Your task to perform on an android device: Show the shopping cart on target.com. Search for logitech g pro on target.com, select the first entry, add it to the cart, then select checkout. Image 0: 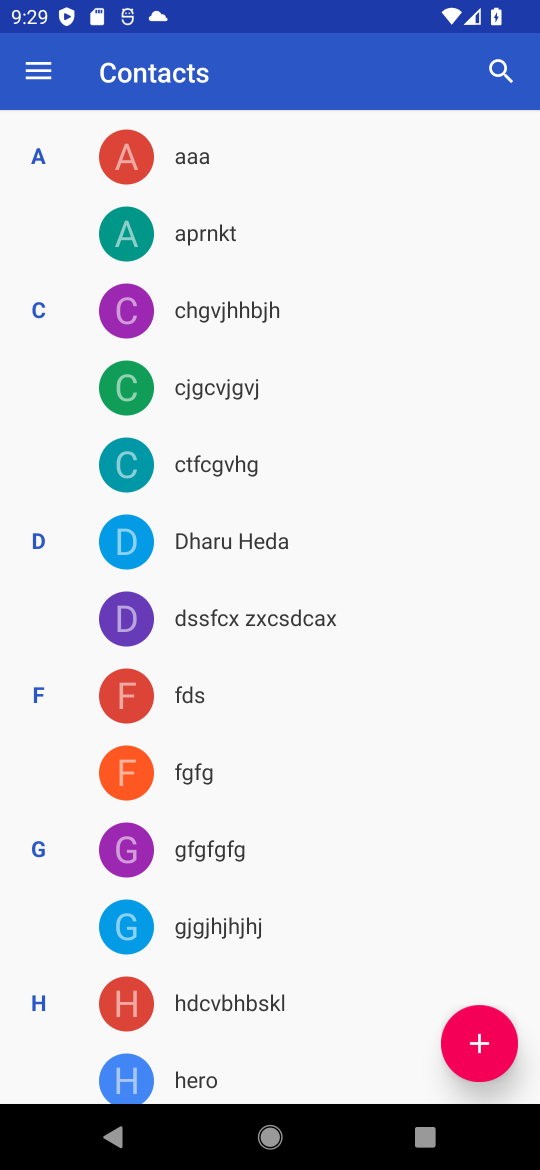
Step 0: press home button
Your task to perform on an android device: Show the shopping cart on target.com. Search for logitech g pro on target.com, select the first entry, add it to the cart, then select checkout. Image 1: 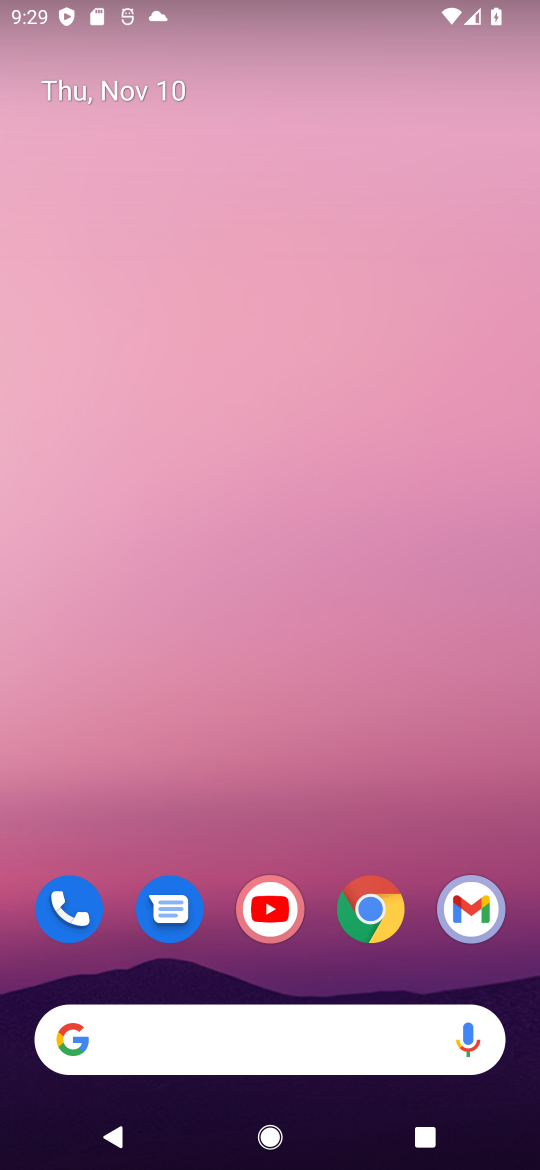
Step 1: drag from (215, 1053) to (390, 361)
Your task to perform on an android device: Show the shopping cart on target.com. Search for logitech g pro on target.com, select the first entry, add it to the cart, then select checkout. Image 2: 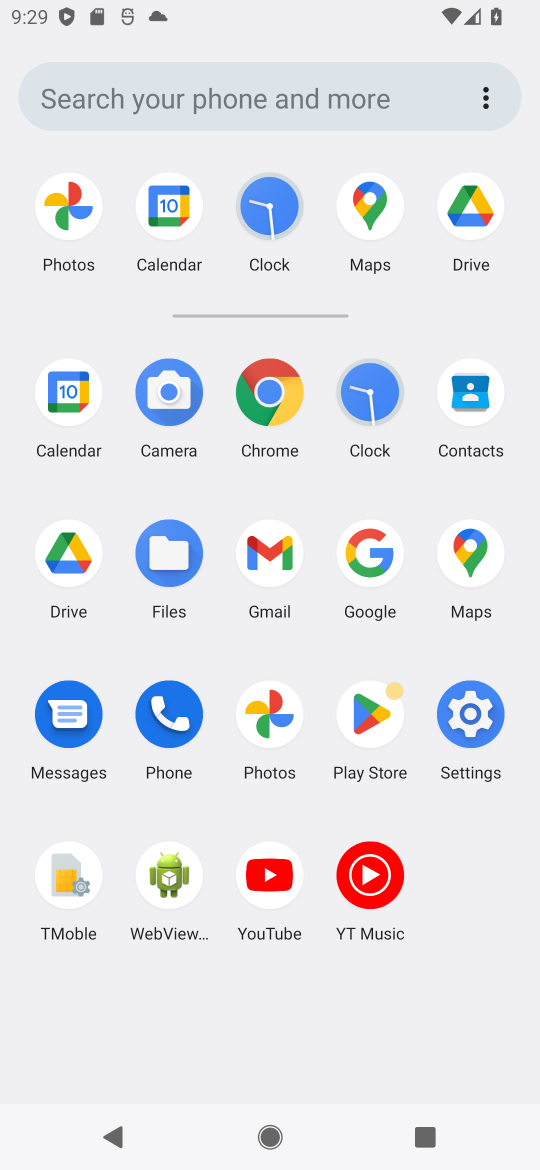
Step 2: click (354, 558)
Your task to perform on an android device: Show the shopping cart on target.com. Search for logitech g pro on target.com, select the first entry, add it to the cart, then select checkout. Image 3: 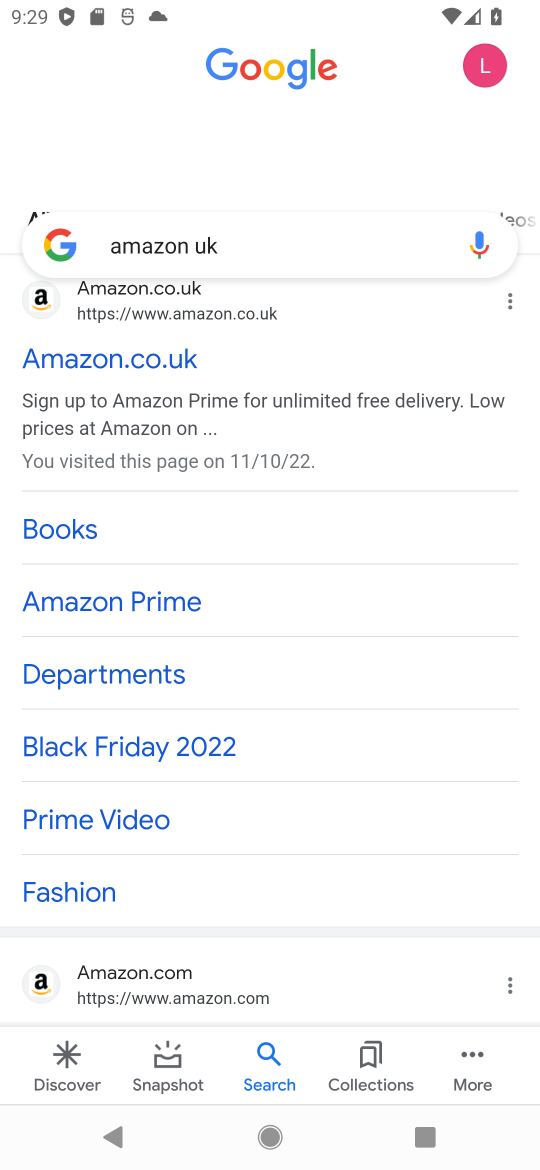
Step 3: click (248, 213)
Your task to perform on an android device: Show the shopping cart on target.com. Search for logitech g pro on target.com, select the first entry, add it to the cart, then select checkout. Image 4: 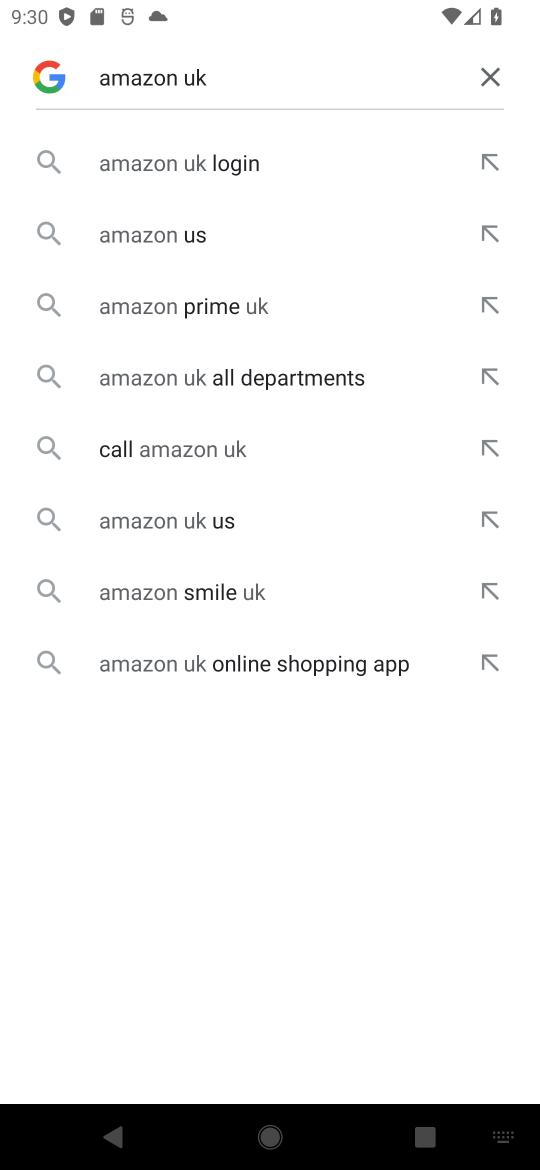
Step 4: click (496, 68)
Your task to perform on an android device: Show the shopping cart on target.com. Search for logitech g pro on target.com, select the first entry, add it to the cart, then select checkout. Image 5: 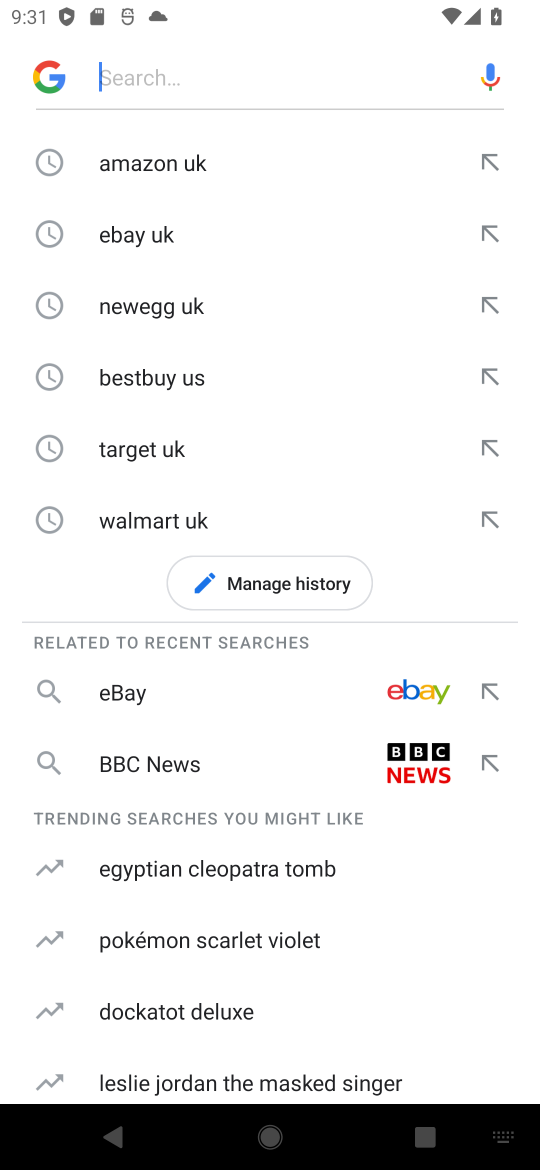
Step 5: click (180, 445)
Your task to perform on an android device: Show the shopping cart on target.com. Search for logitech g pro on target.com, select the first entry, add it to the cart, then select checkout. Image 6: 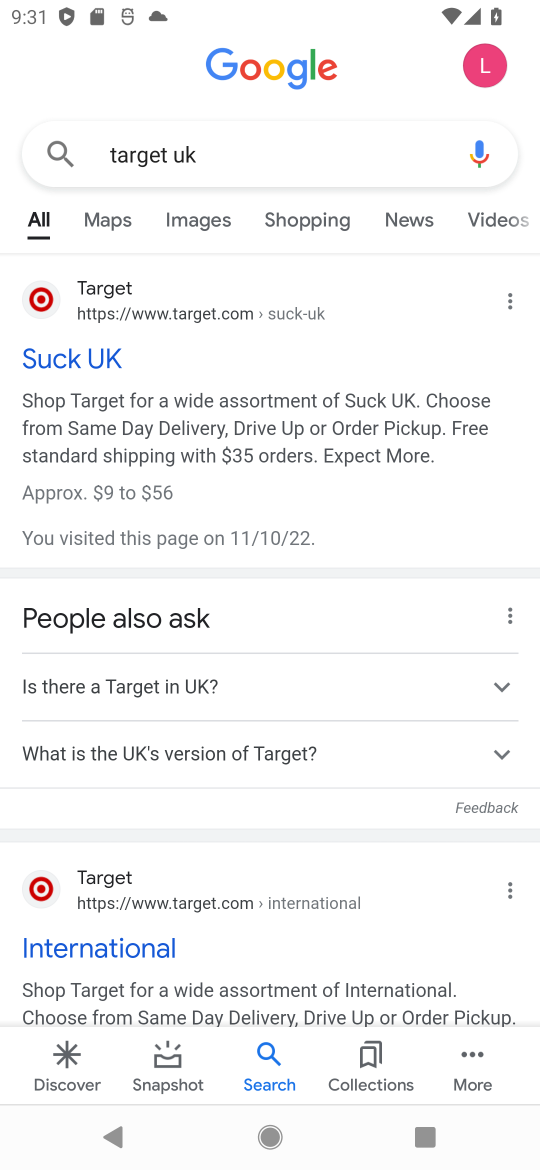
Step 6: click (44, 293)
Your task to perform on an android device: Show the shopping cart on target.com. Search for logitech g pro on target.com, select the first entry, add it to the cart, then select checkout. Image 7: 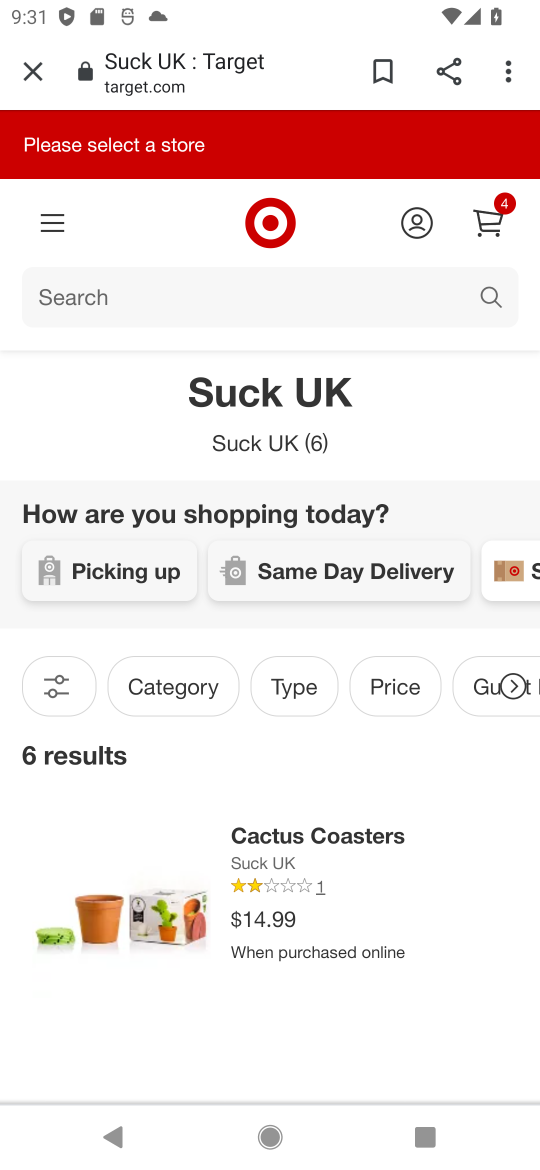
Step 7: click (211, 282)
Your task to perform on an android device: Show the shopping cart on target.com. Search for logitech g pro on target.com, select the first entry, add it to the cart, then select checkout. Image 8: 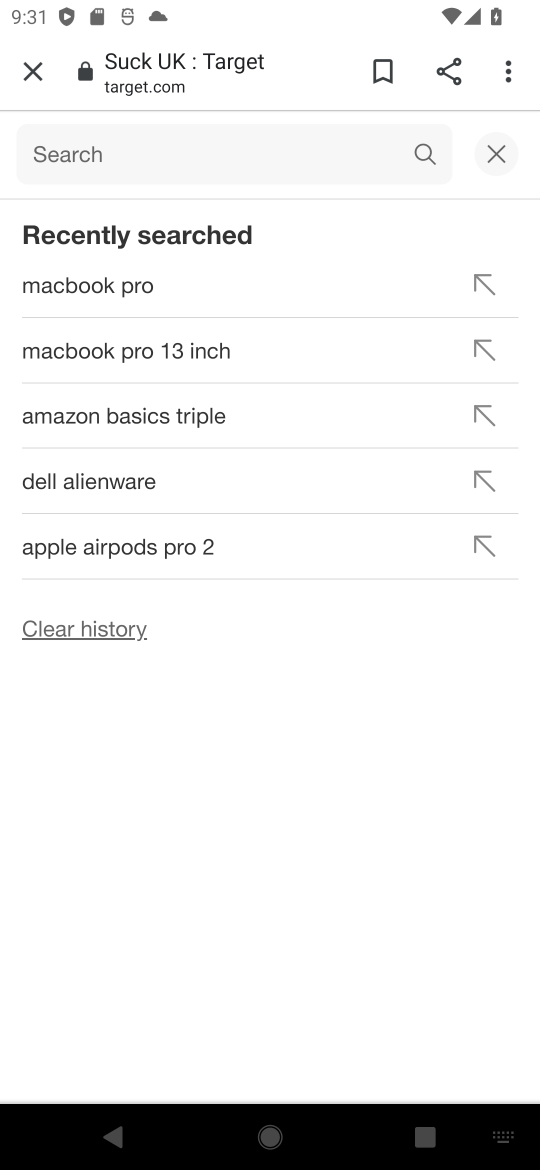
Step 8: click (305, 146)
Your task to perform on an android device: Show the shopping cart on target.com. Search for logitech g pro on target.com, select the first entry, add it to the cart, then select checkout. Image 9: 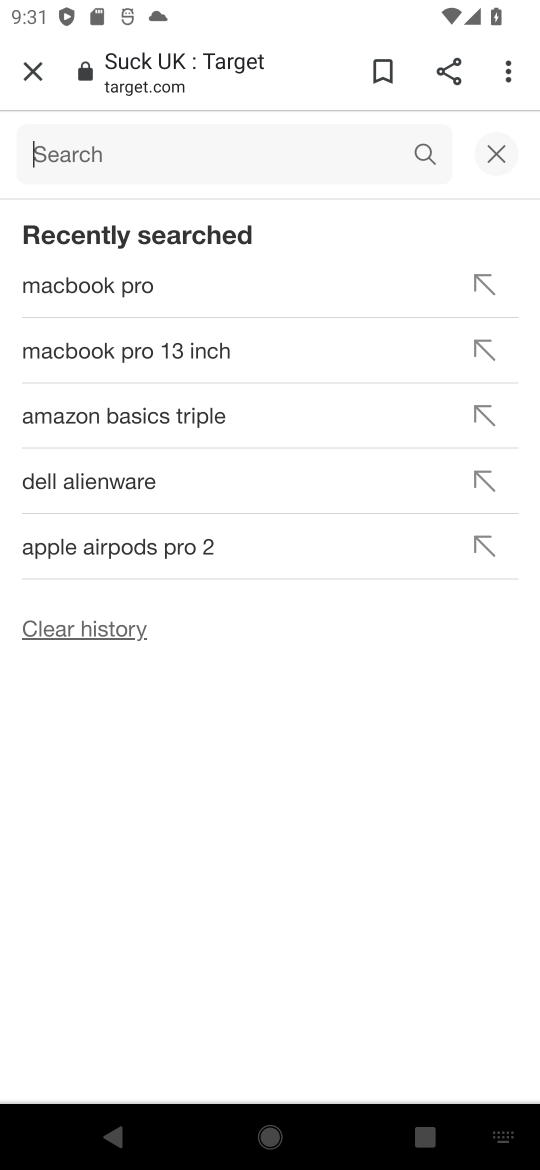
Step 9: click (209, 148)
Your task to perform on an android device: Show the shopping cart on target.com. Search for logitech g pro on target.com, select the first entry, add it to the cart, then select checkout. Image 10: 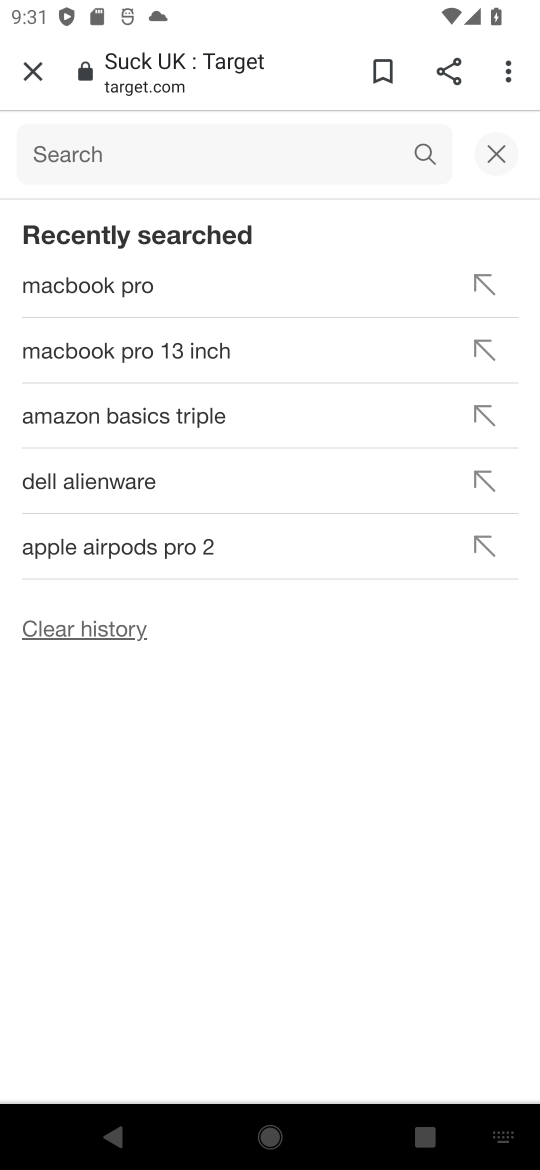
Step 10: type "usb-a "
Your task to perform on an android device: Show the shopping cart on target.com. Search for logitech g pro on target.com, select the first entry, add it to the cart, then select checkout. Image 11: 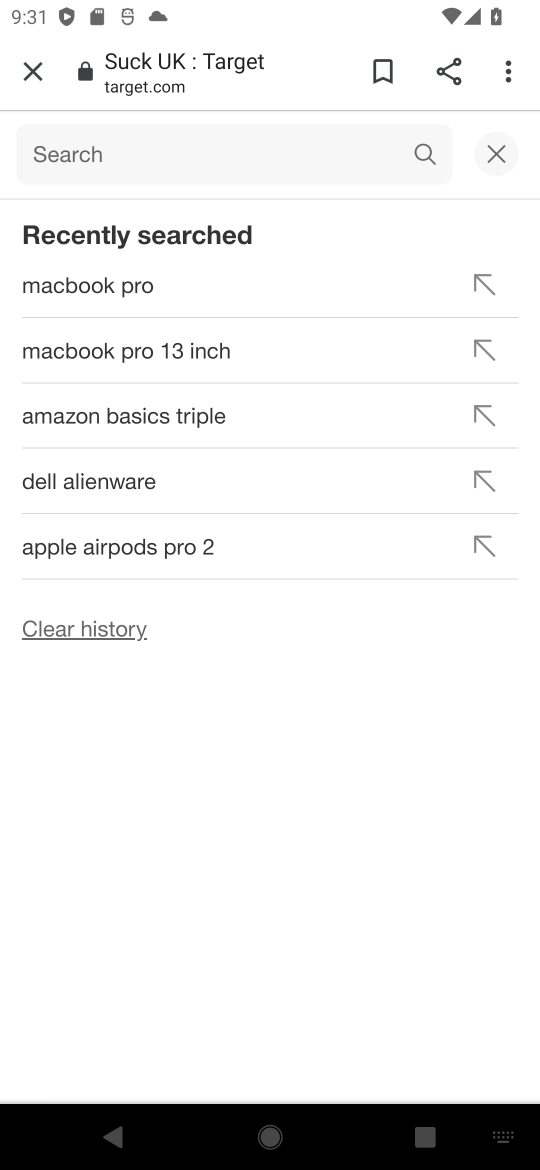
Step 11: click (482, 146)
Your task to perform on an android device: Show the shopping cart on target.com. Search for logitech g pro on target.com, select the first entry, add it to the cart, then select checkout. Image 12: 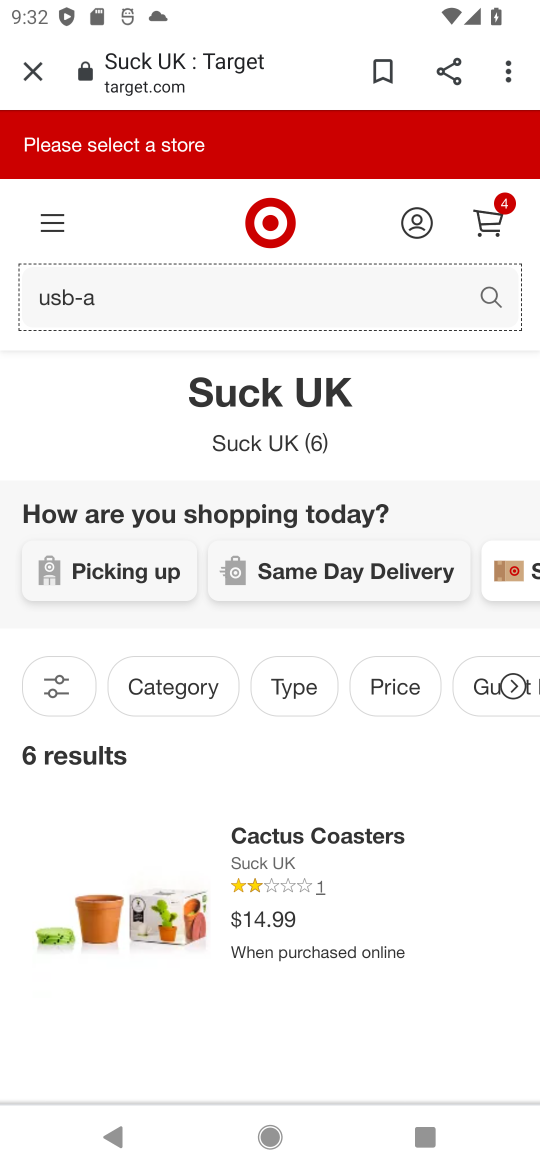
Step 12: click (303, 283)
Your task to perform on an android device: Show the shopping cart on target.com. Search for logitech g pro on target.com, select the first entry, add it to the cart, then select checkout. Image 13: 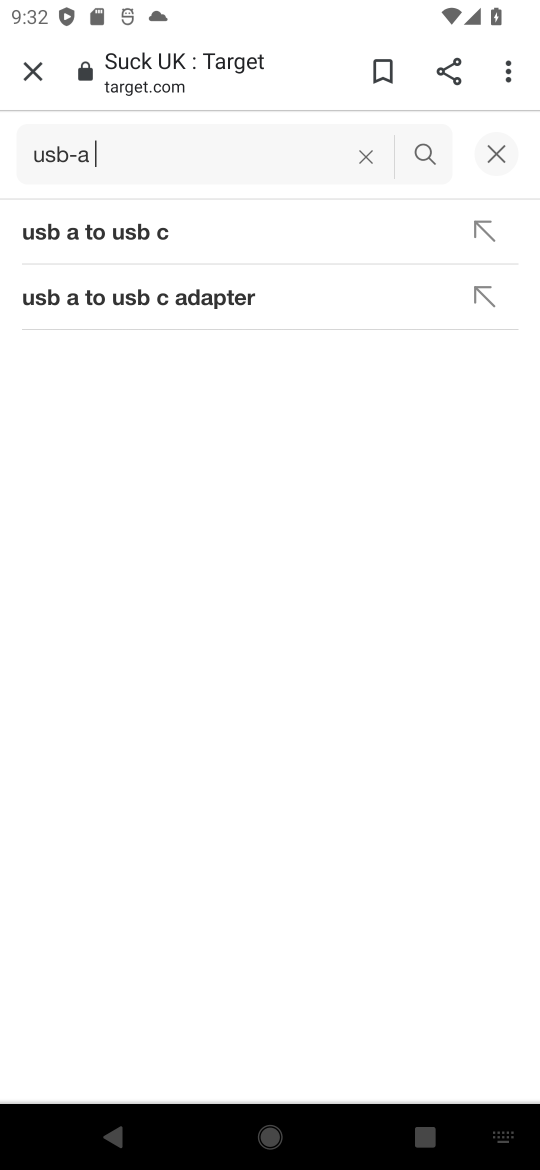
Step 13: click (491, 155)
Your task to perform on an android device: Show the shopping cart on target.com. Search for logitech g pro on target.com, select the first entry, add it to the cart, then select checkout. Image 14: 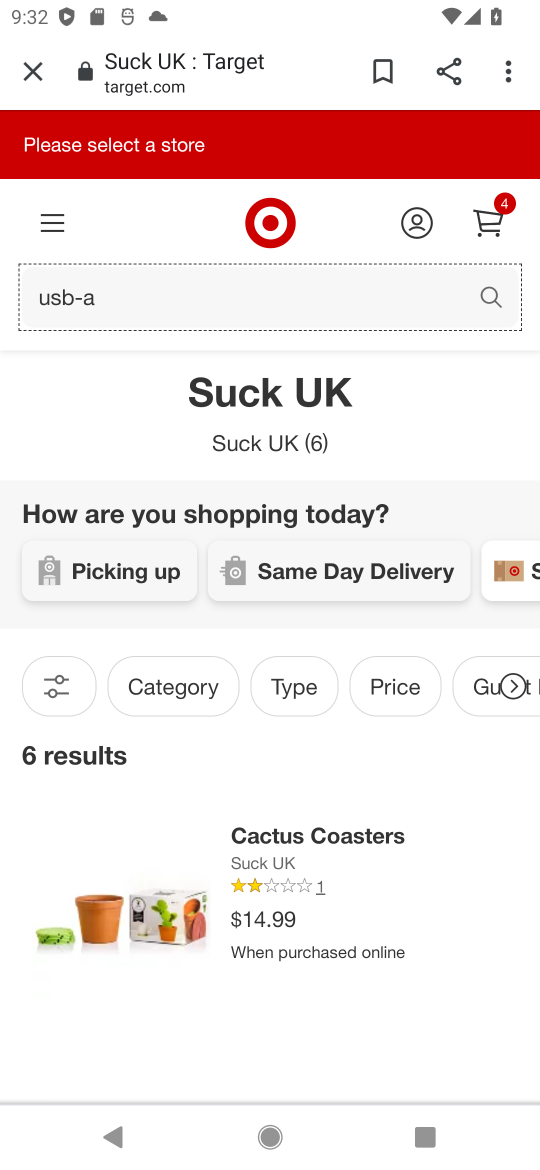
Step 14: click (217, 289)
Your task to perform on an android device: Show the shopping cart on target.com. Search for logitech g pro on target.com, select the first entry, add it to the cart, then select checkout. Image 15: 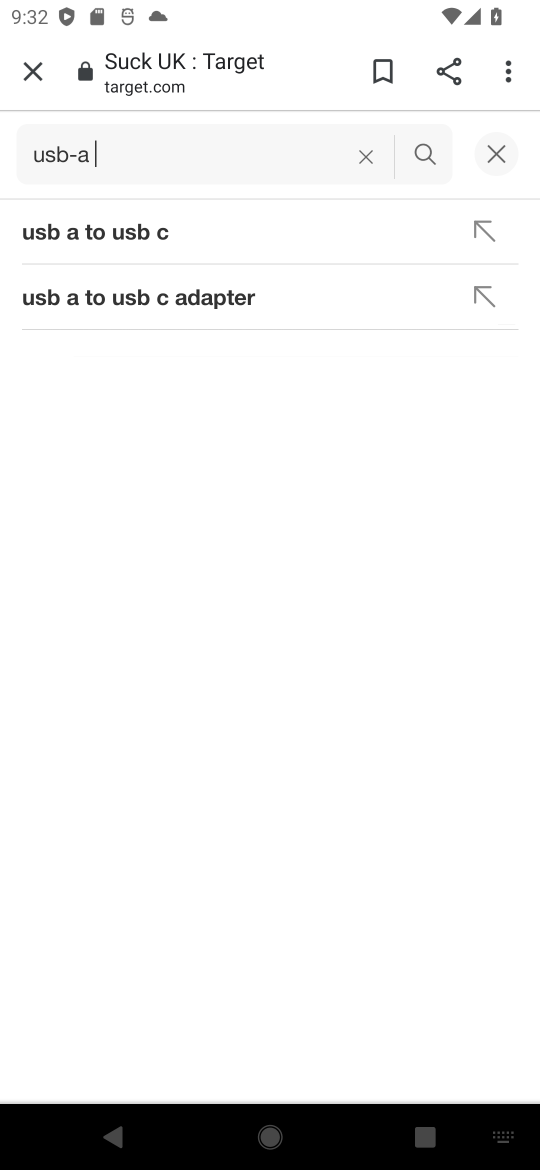
Step 15: click (367, 150)
Your task to perform on an android device: Show the shopping cart on target.com. Search for logitech g pro on target.com, select the first entry, add it to the cart, then select checkout. Image 16: 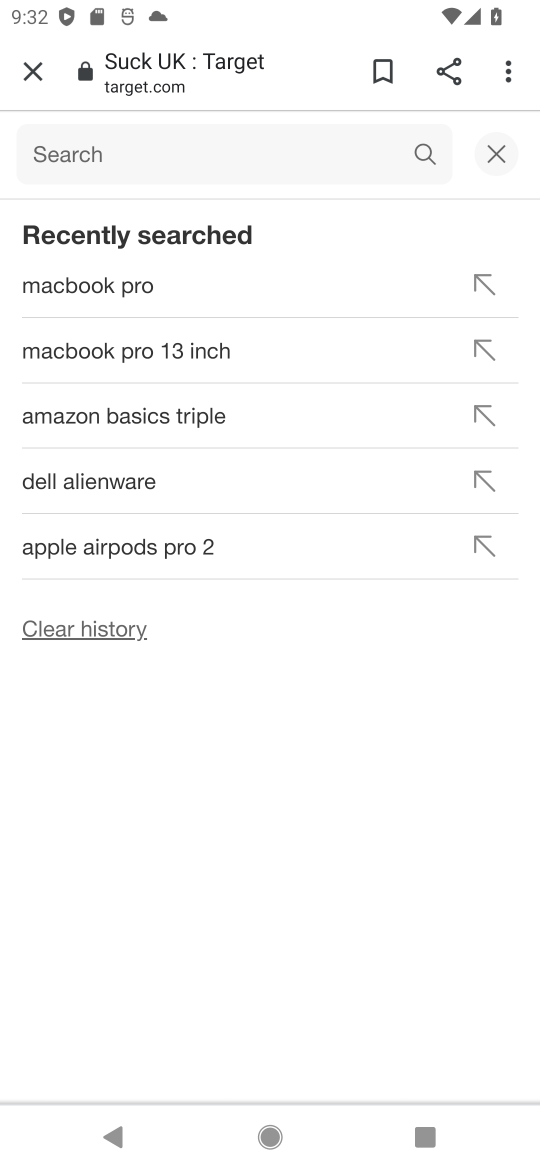
Step 16: click (170, 142)
Your task to perform on an android device: Show the shopping cart on target.com. Search for logitech g pro on target.com, select the first entry, add it to the cart, then select checkout. Image 17: 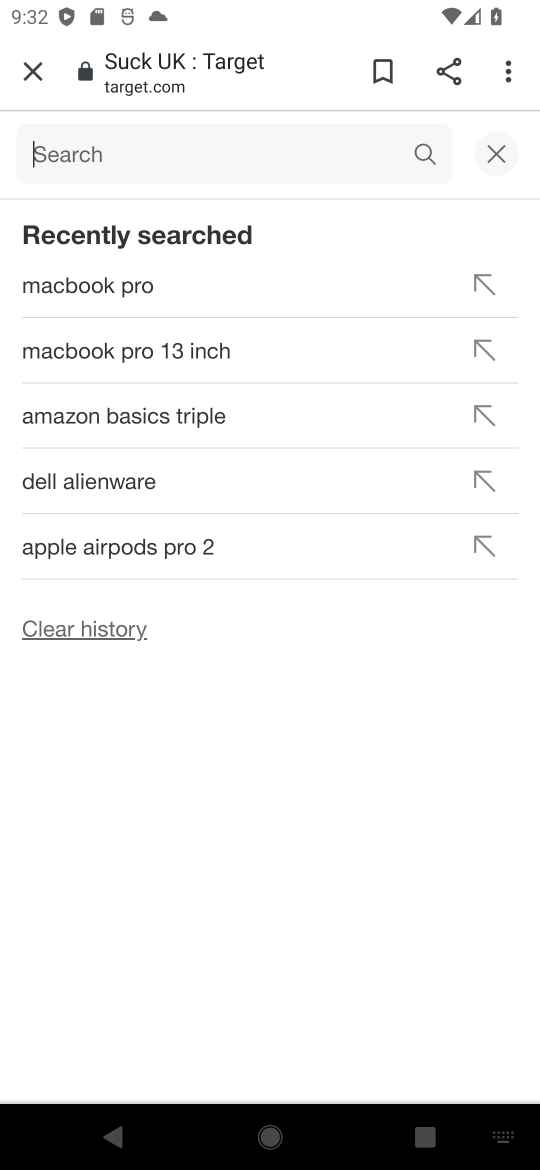
Step 17: click (206, 128)
Your task to perform on an android device: Show the shopping cart on target.com. Search for logitech g pro on target.com, select the first entry, add it to the cart, then select checkout. Image 18: 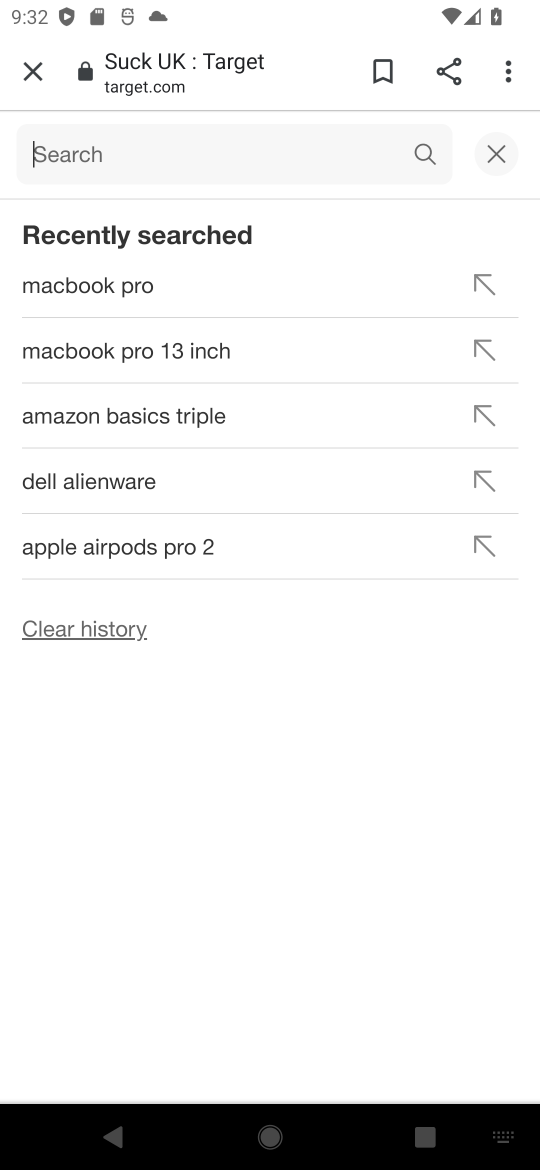
Step 18: type "logitech g pro  "
Your task to perform on an android device: Show the shopping cart on target.com. Search for logitech g pro on target.com, select the first entry, add it to the cart, then select checkout. Image 19: 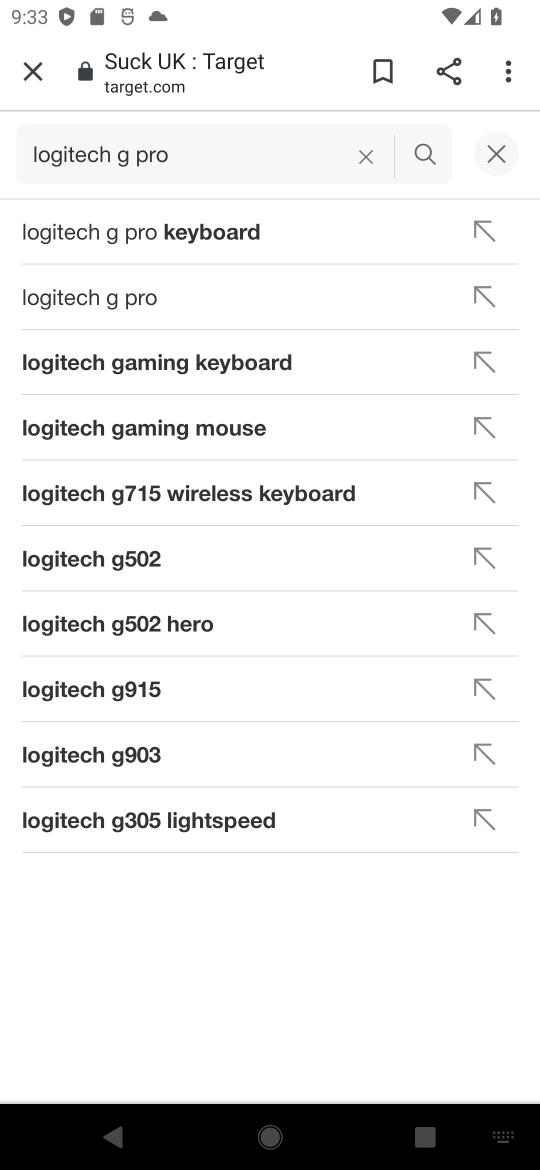
Step 19: click (129, 291)
Your task to perform on an android device: Show the shopping cart on target.com. Search for logitech g pro on target.com, select the first entry, add it to the cart, then select checkout. Image 20: 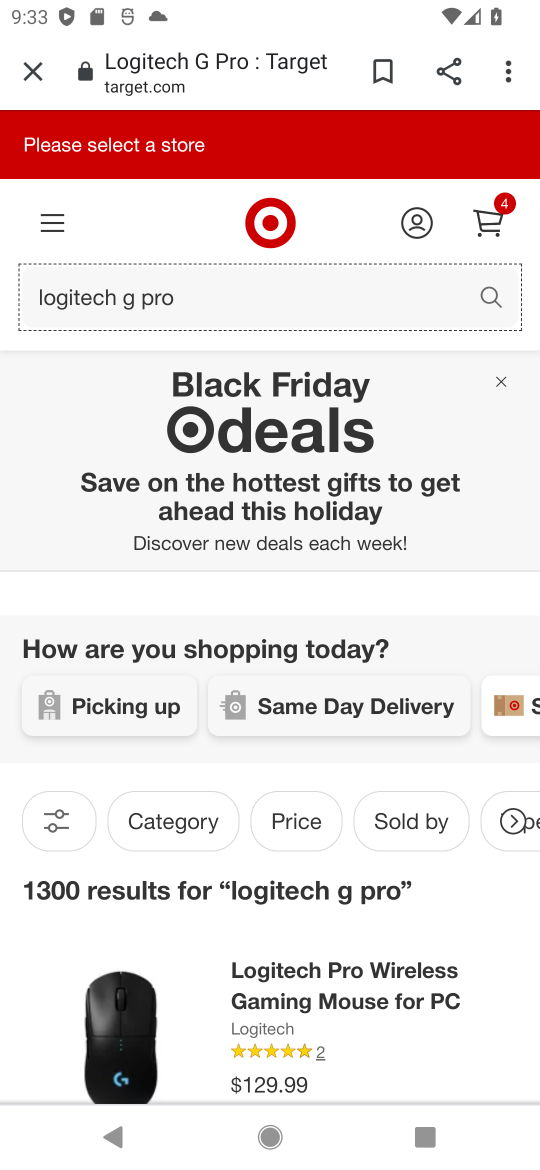
Step 20: drag from (218, 1026) to (380, 425)
Your task to perform on an android device: Show the shopping cart on target.com. Search for logitech g pro on target.com, select the first entry, add it to the cart, then select checkout. Image 21: 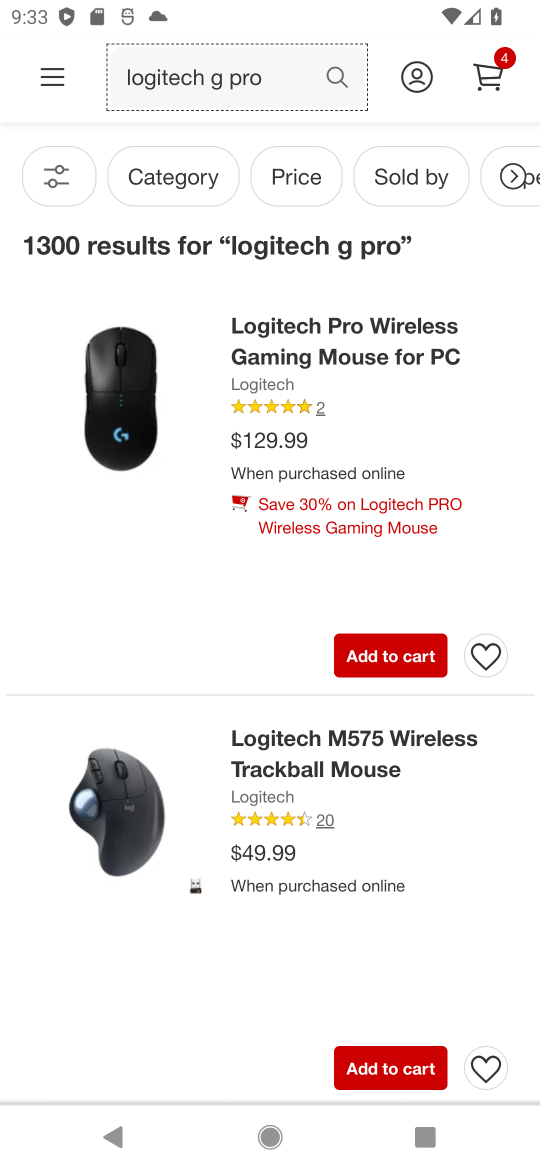
Step 21: click (380, 652)
Your task to perform on an android device: Show the shopping cart on target.com. Search for logitech g pro on target.com, select the first entry, add it to the cart, then select checkout. Image 22: 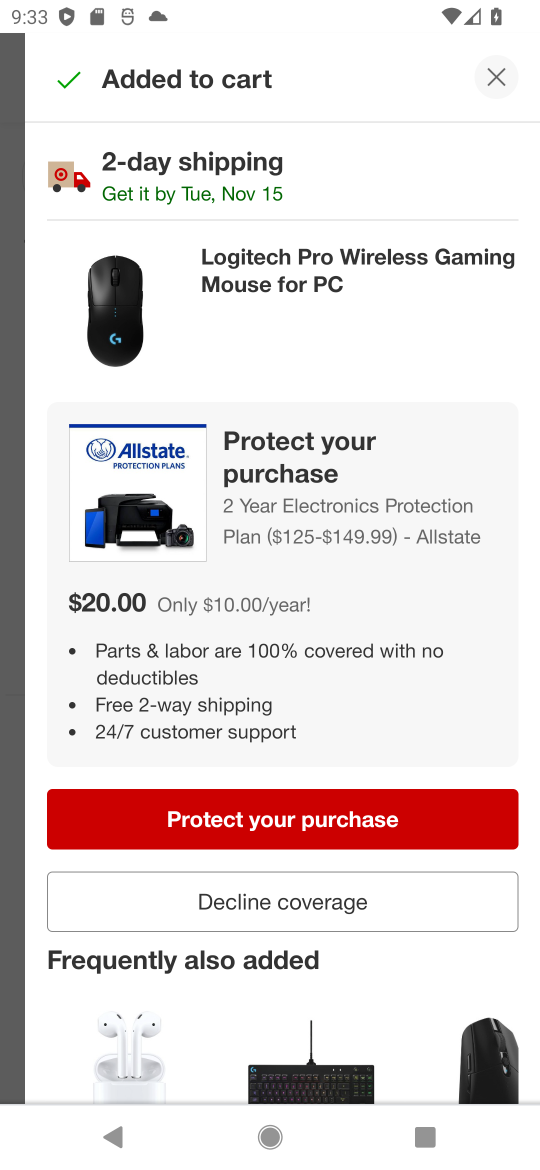
Step 22: task complete